Your task to perform on an android device: turn on javascript in the chrome app Image 0: 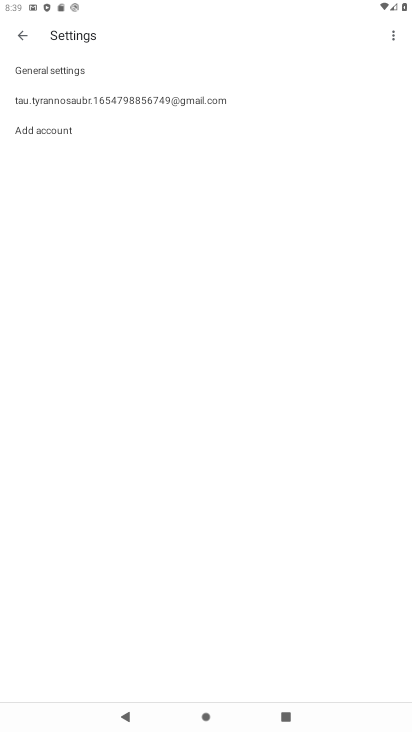
Step 0: press home button
Your task to perform on an android device: turn on javascript in the chrome app Image 1: 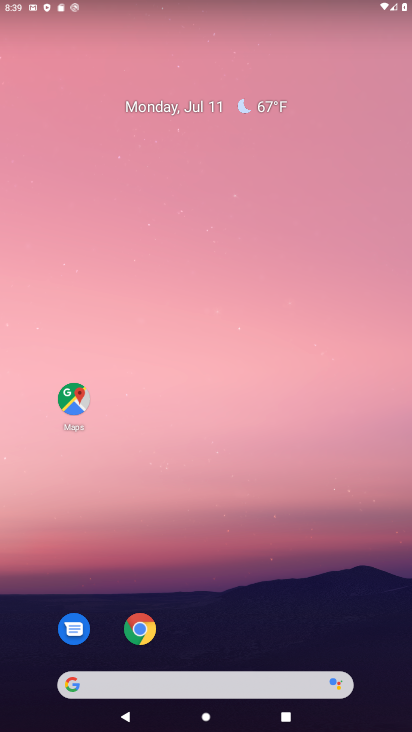
Step 1: drag from (239, 609) to (236, 0)
Your task to perform on an android device: turn on javascript in the chrome app Image 2: 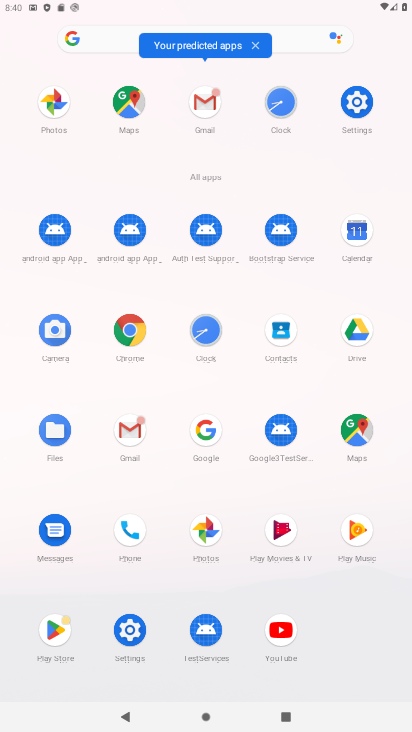
Step 2: click (141, 335)
Your task to perform on an android device: turn on javascript in the chrome app Image 3: 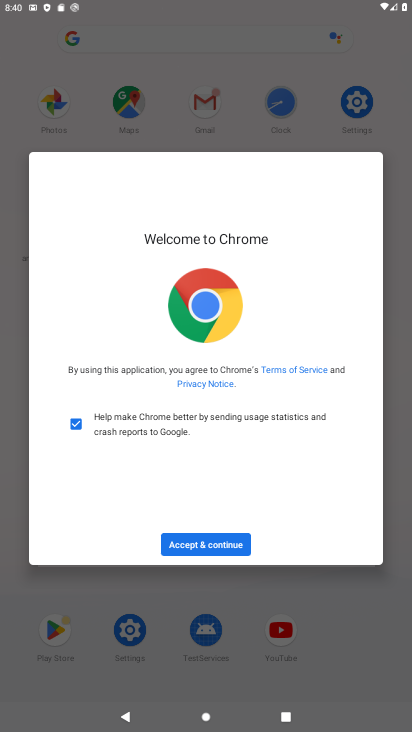
Step 3: click (198, 545)
Your task to perform on an android device: turn on javascript in the chrome app Image 4: 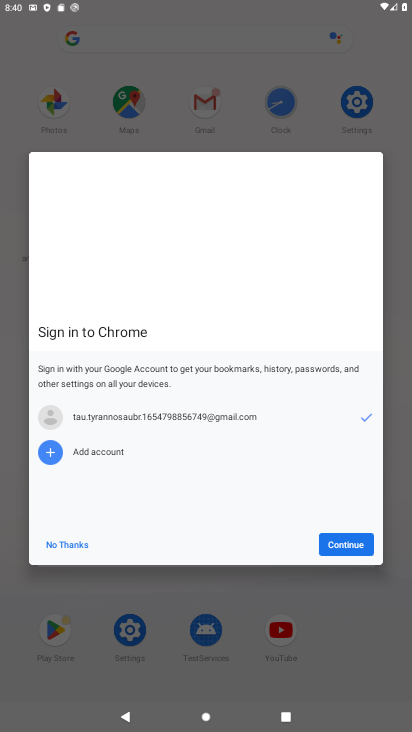
Step 4: click (334, 538)
Your task to perform on an android device: turn on javascript in the chrome app Image 5: 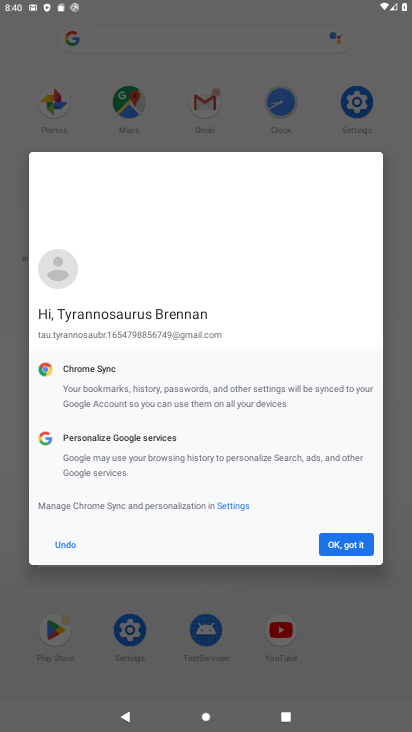
Step 5: click (334, 538)
Your task to perform on an android device: turn on javascript in the chrome app Image 6: 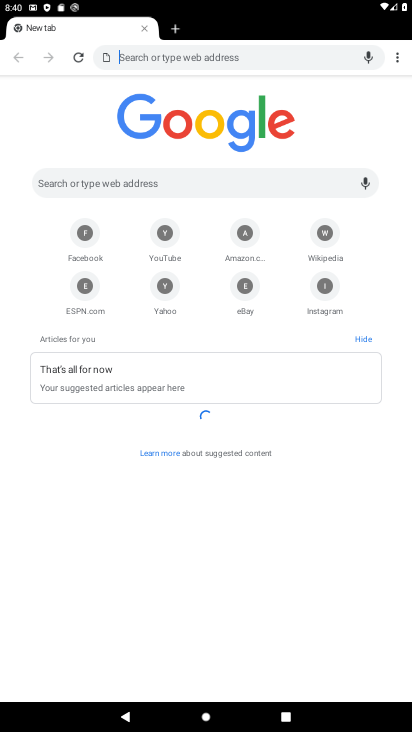
Step 6: drag from (396, 58) to (270, 265)
Your task to perform on an android device: turn on javascript in the chrome app Image 7: 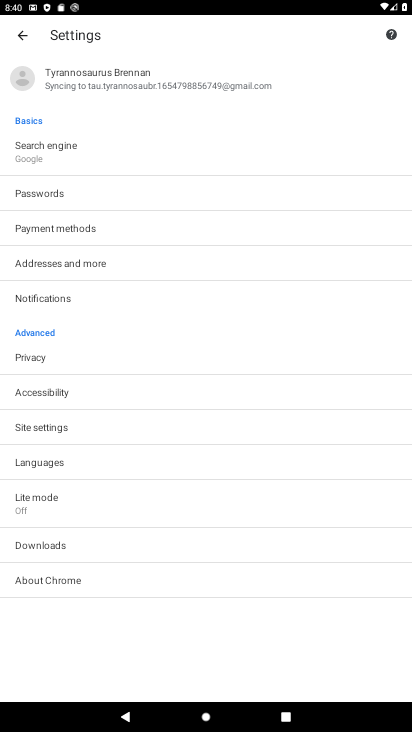
Step 7: click (49, 424)
Your task to perform on an android device: turn on javascript in the chrome app Image 8: 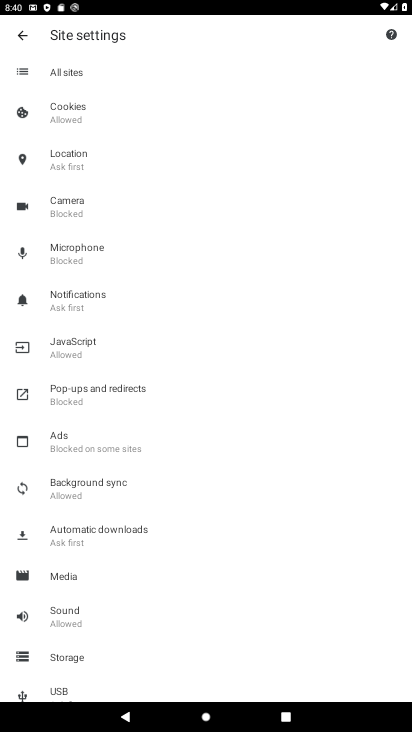
Step 8: click (67, 341)
Your task to perform on an android device: turn on javascript in the chrome app Image 9: 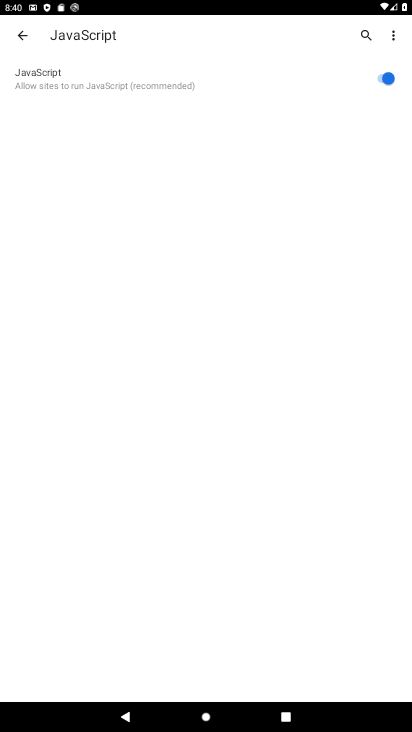
Step 9: task complete